Your task to perform on an android device: Open Amazon Image 0: 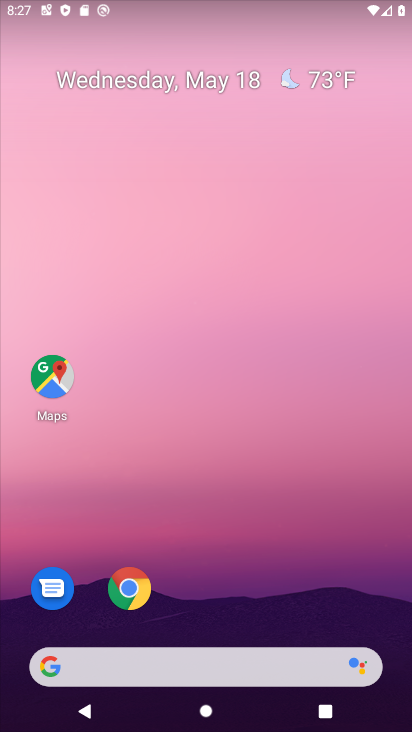
Step 0: drag from (309, 545) to (250, 224)
Your task to perform on an android device: Open Amazon Image 1: 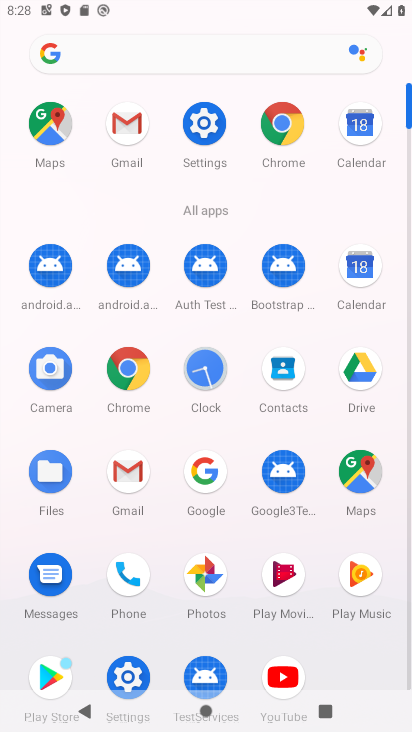
Step 1: drag from (363, 640) to (288, 189)
Your task to perform on an android device: Open Amazon Image 2: 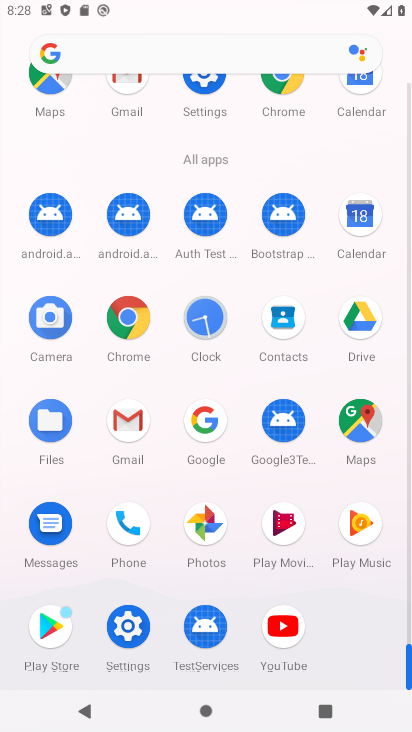
Step 2: click (111, 324)
Your task to perform on an android device: Open Amazon Image 3: 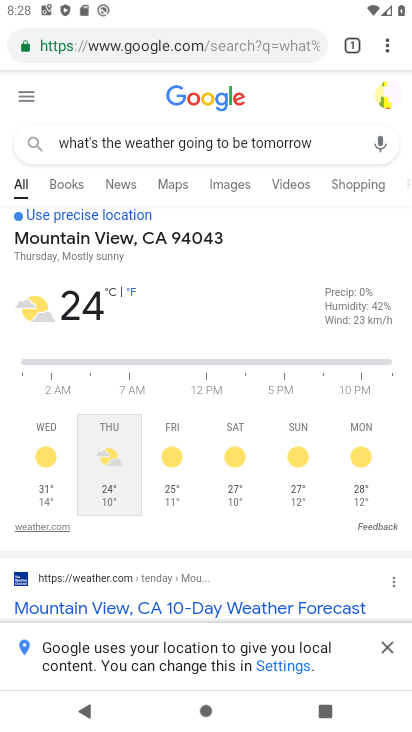
Step 3: click (198, 47)
Your task to perform on an android device: Open Amazon Image 4: 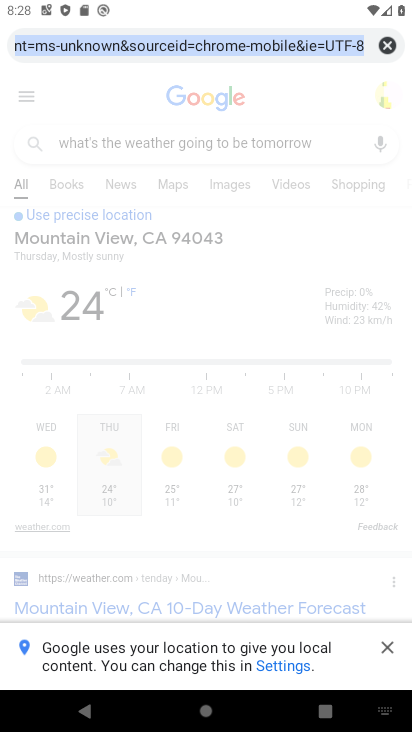
Step 4: click (397, 42)
Your task to perform on an android device: Open Amazon Image 5: 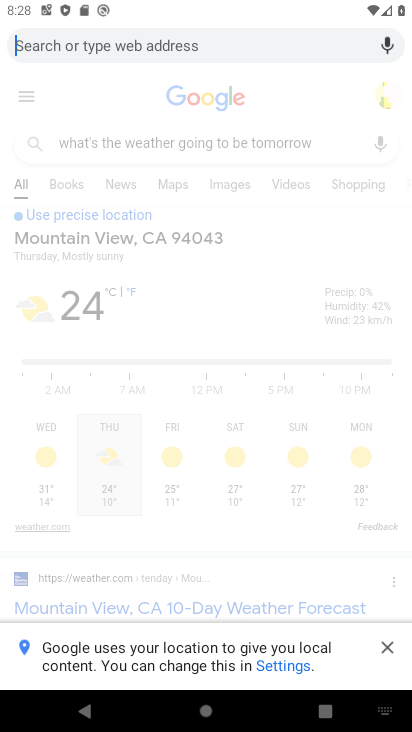
Step 5: type "amazon "
Your task to perform on an android device: Open Amazon Image 6: 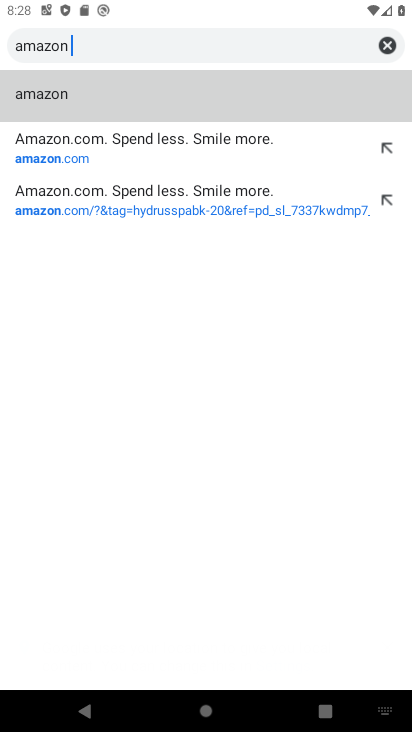
Step 6: click (49, 153)
Your task to perform on an android device: Open Amazon Image 7: 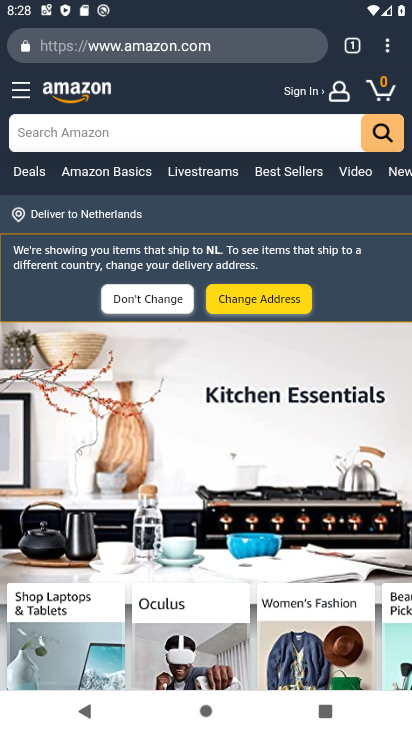
Step 7: task complete